Your task to perform on an android device: What's the weather? Image 0: 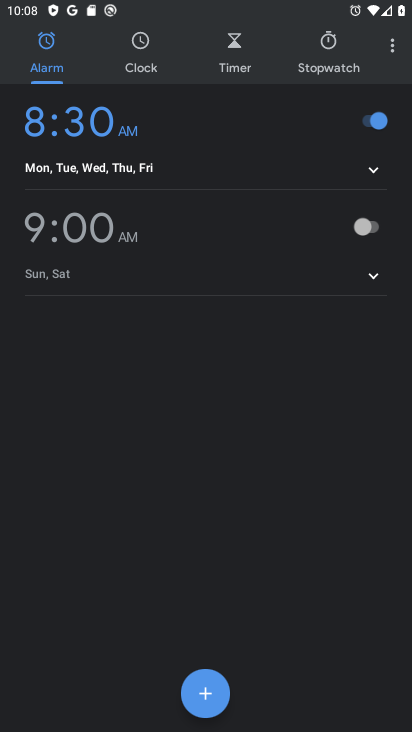
Step 0: press home button
Your task to perform on an android device: What's the weather? Image 1: 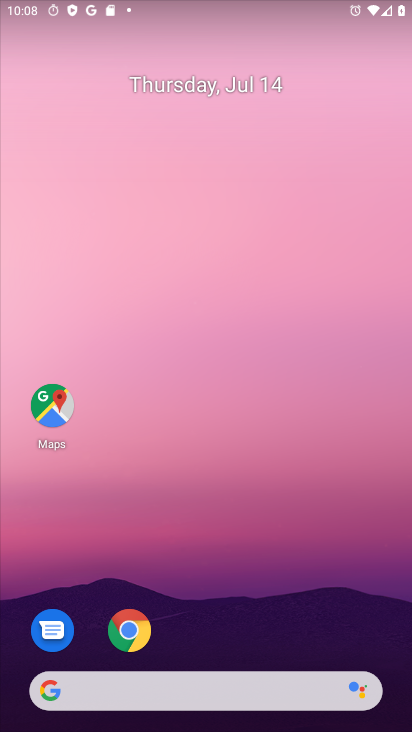
Step 1: click (73, 689)
Your task to perform on an android device: What's the weather? Image 2: 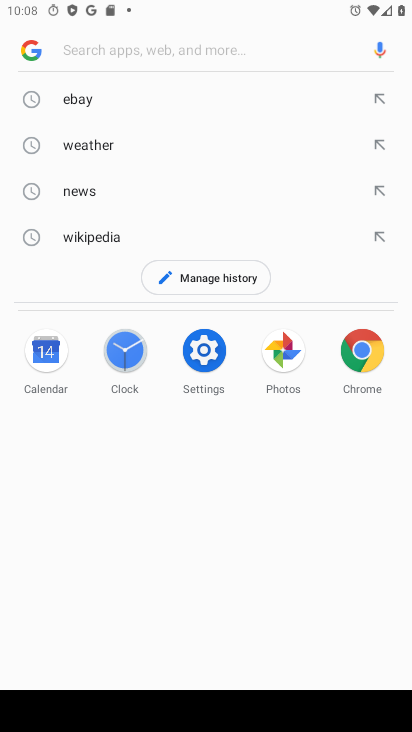
Step 2: type "What's the weather?"
Your task to perform on an android device: What's the weather? Image 3: 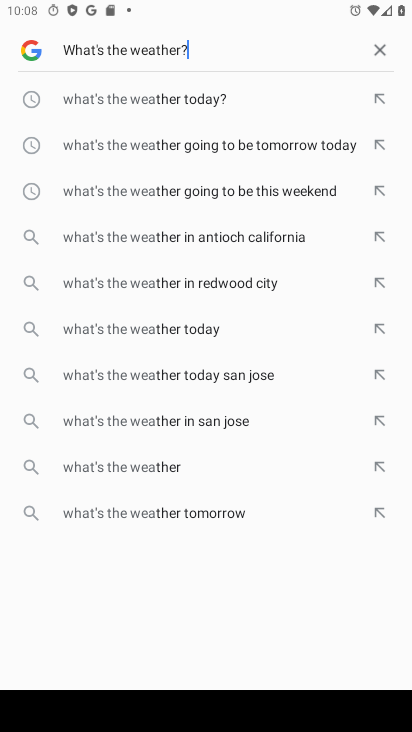
Step 3: type ""
Your task to perform on an android device: What's the weather? Image 4: 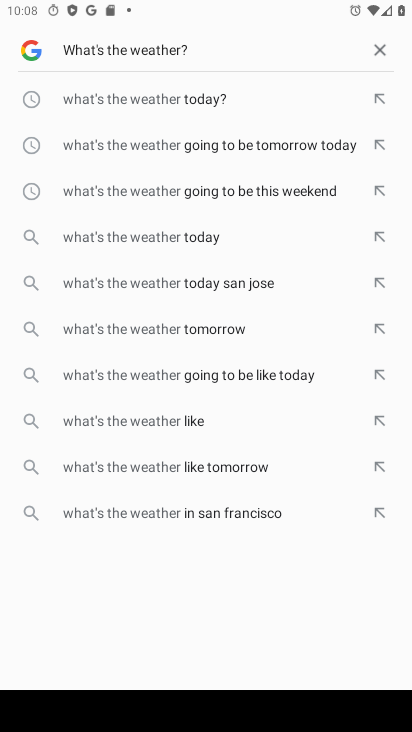
Step 4: task complete